Your task to perform on an android device: What's the news in Thailand? Image 0: 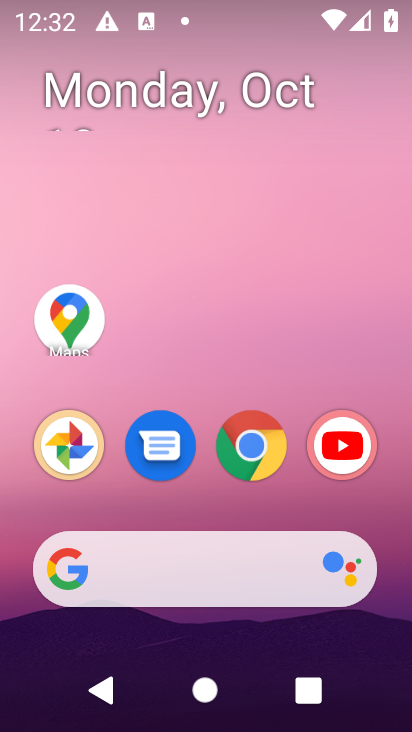
Step 0: click (71, 567)
Your task to perform on an android device: What's the news in Thailand? Image 1: 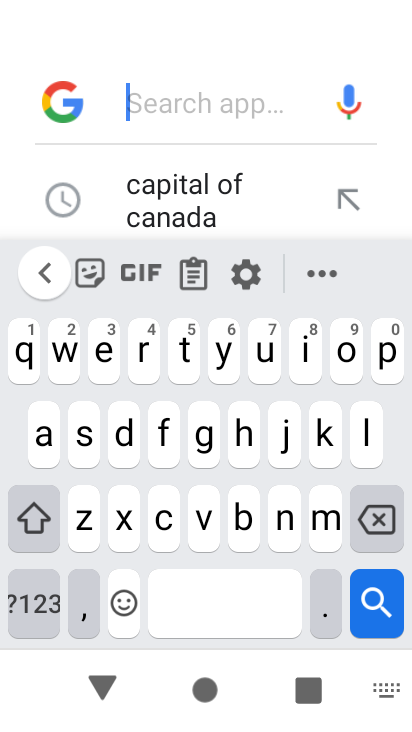
Step 1: type "whats the news in thailand?"
Your task to perform on an android device: What's the news in Thailand? Image 2: 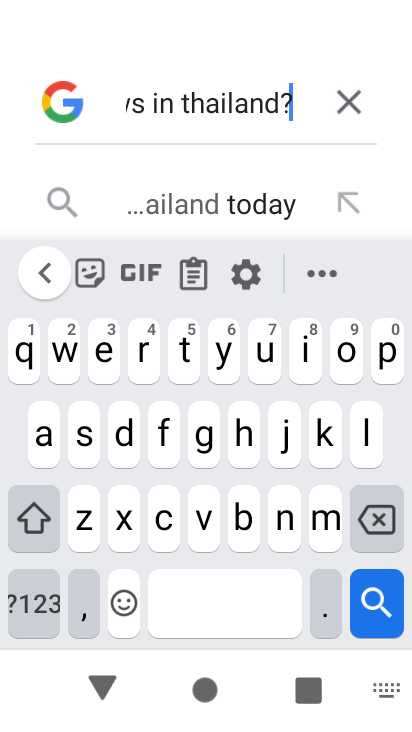
Step 2: click (151, 210)
Your task to perform on an android device: What's the news in Thailand? Image 3: 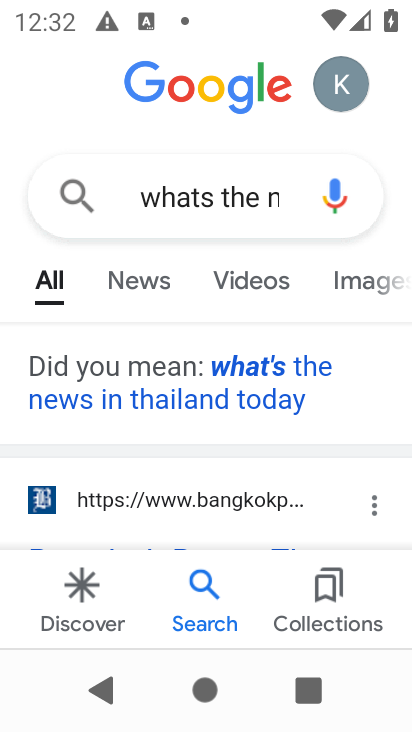
Step 3: drag from (227, 492) to (213, 305)
Your task to perform on an android device: What's the news in Thailand? Image 4: 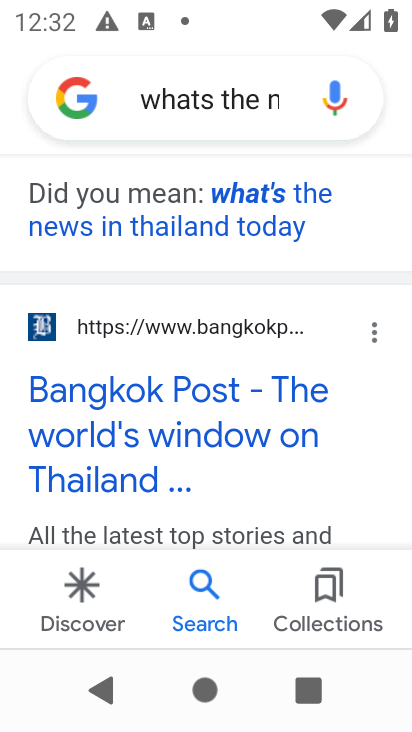
Step 4: click (130, 383)
Your task to perform on an android device: What's the news in Thailand? Image 5: 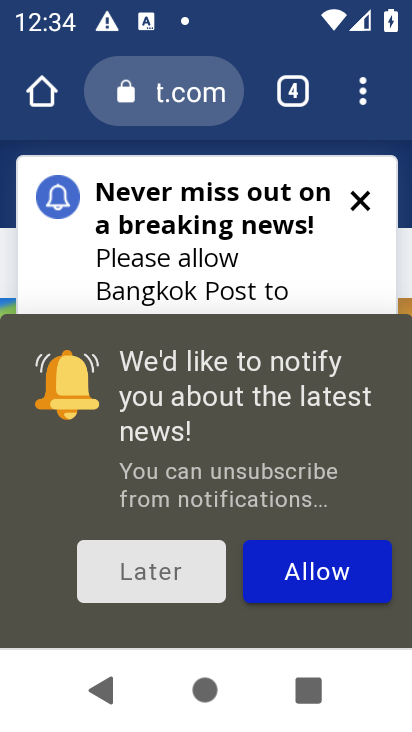
Step 5: click (142, 575)
Your task to perform on an android device: What's the news in Thailand? Image 6: 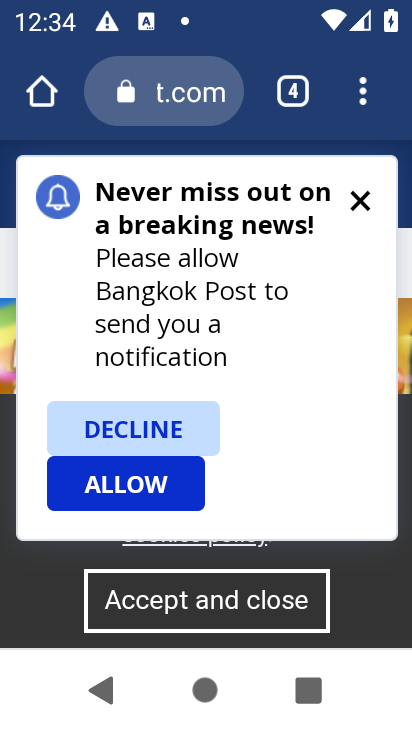
Step 6: task complete